Your task to perform on an android device: Open Google Image 0: 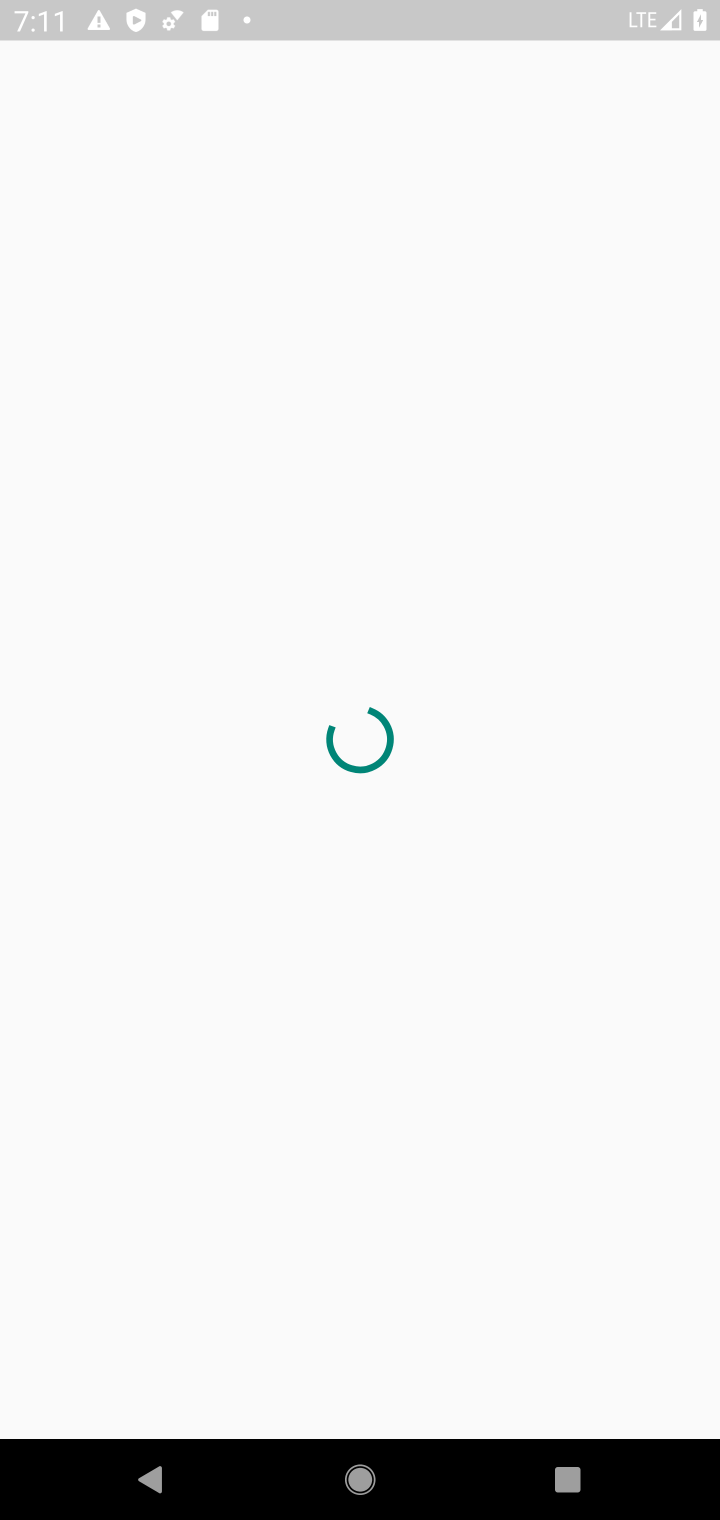
Step 0: press home button
Your task to perform on an android device: Open Google Image 1: 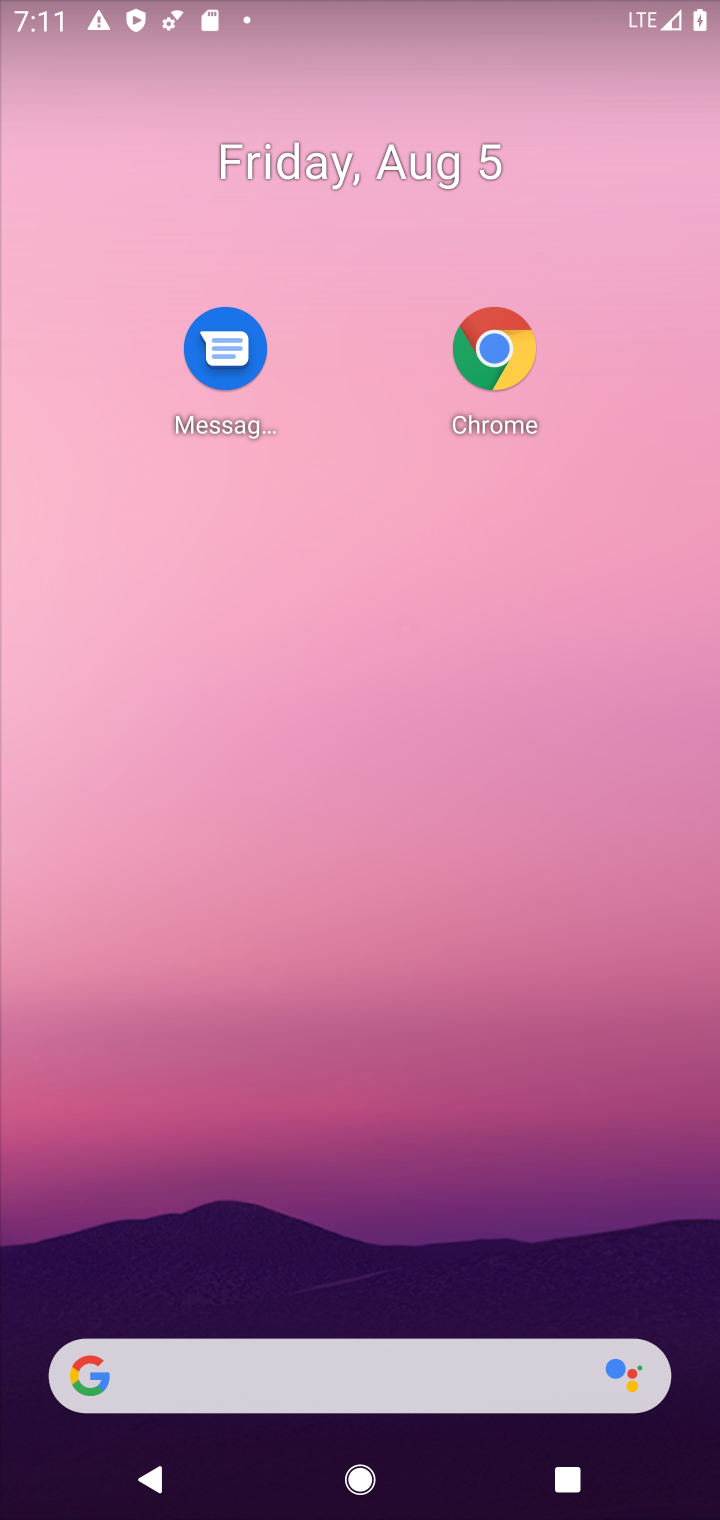
Step 1: drag from (483, 1406) to (360, 344)
Your task to perform on an android device: Open Google Image 2: 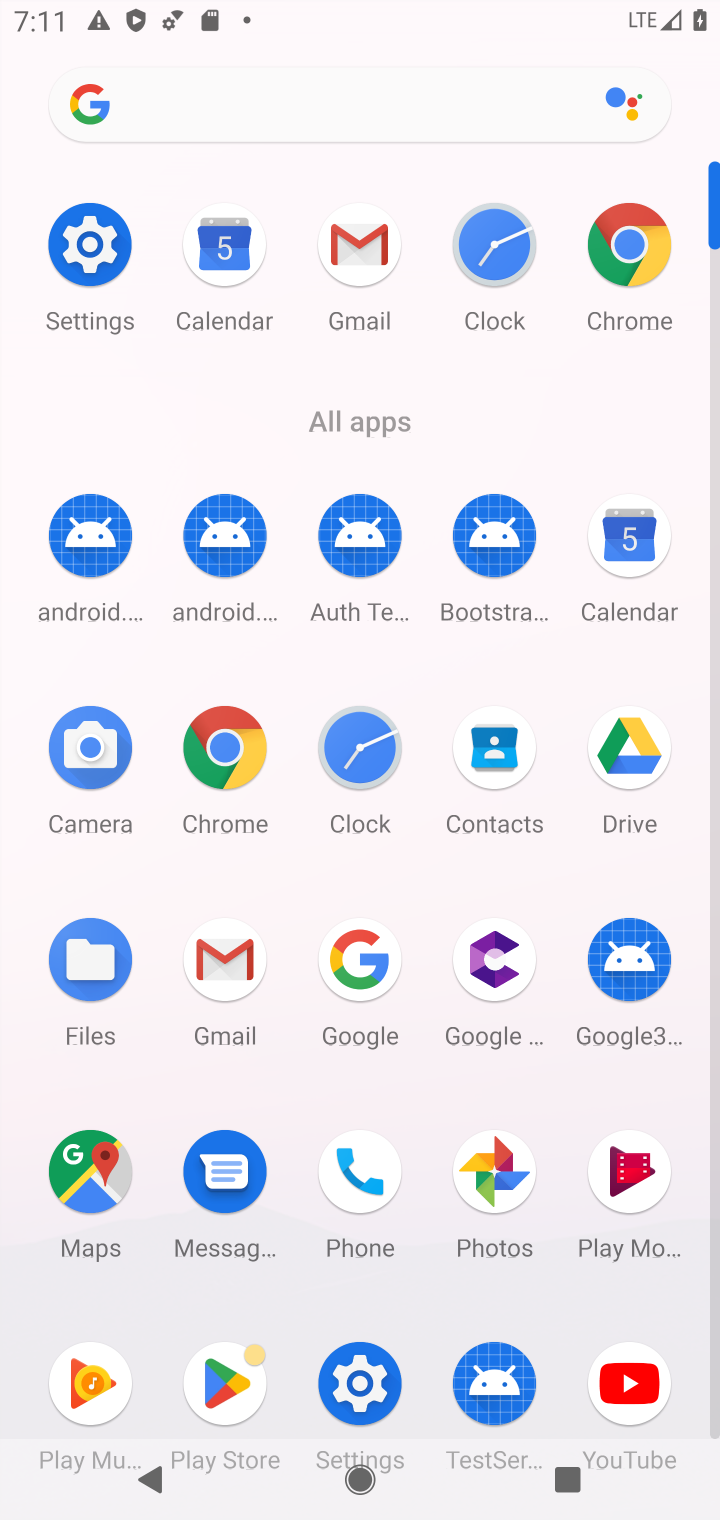
Step 2: click (629, 250)
Your task to perform on an android device: Open Google Image 3: 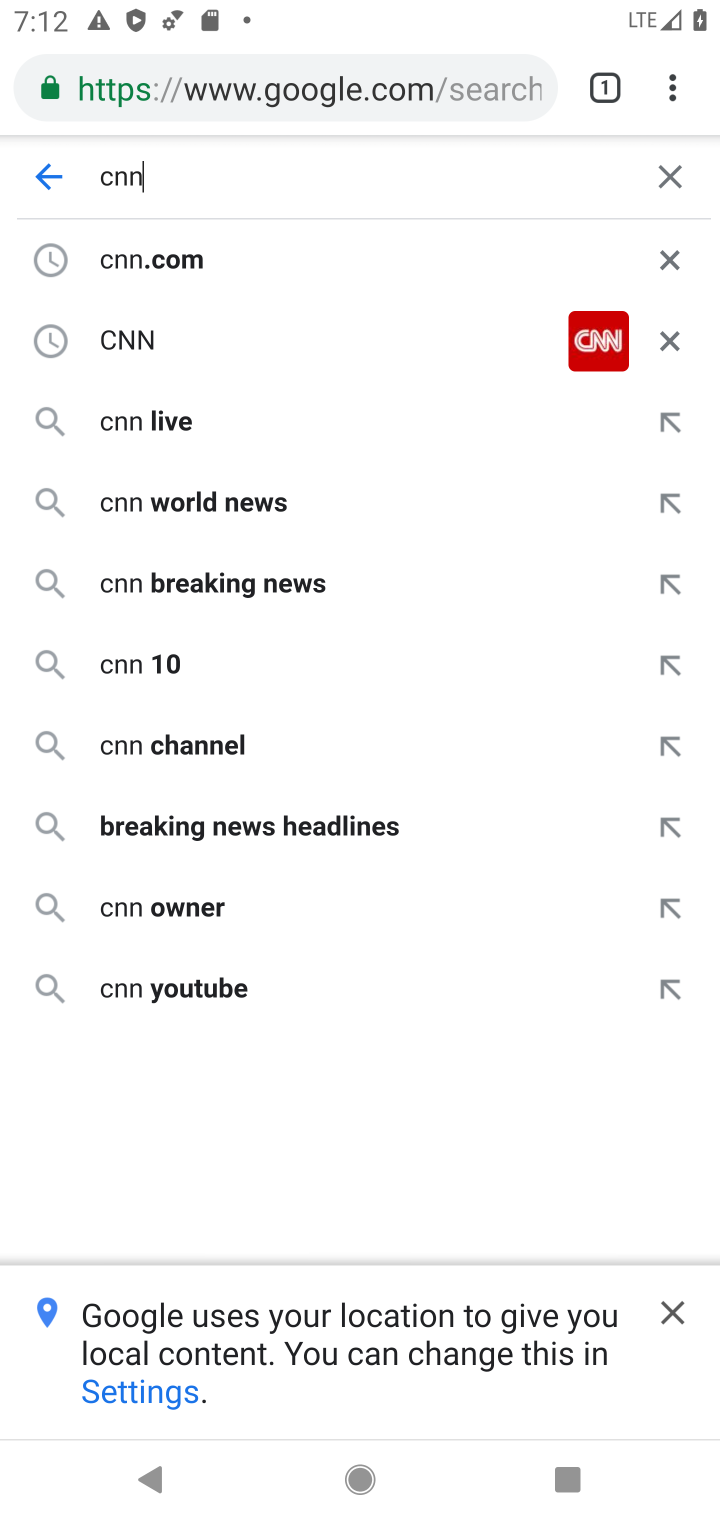
Step 3: click (667, 180)
Your task to perform on an android device: Open Google Image 4: 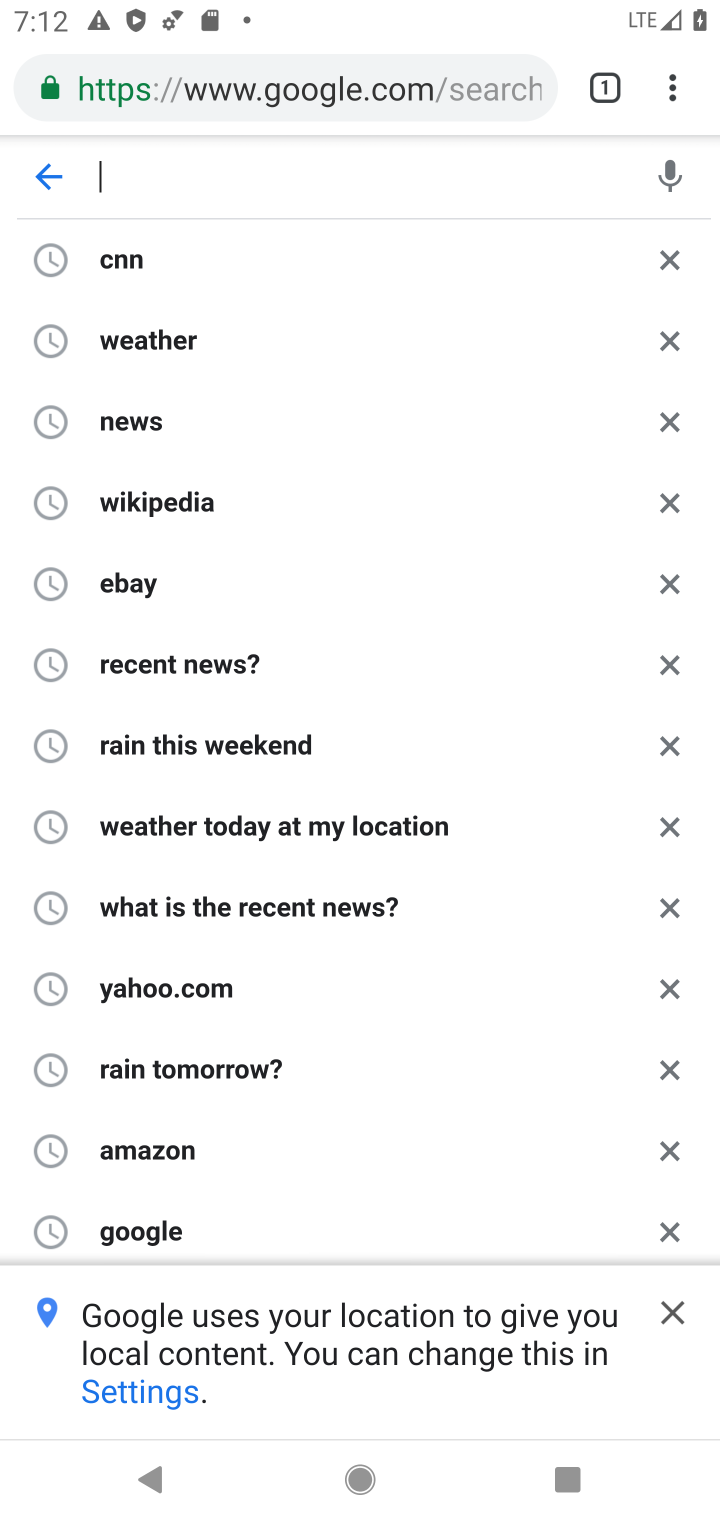
Step 4: click (587, 89)
Your task to perform on an android device: Open Google Image 5: 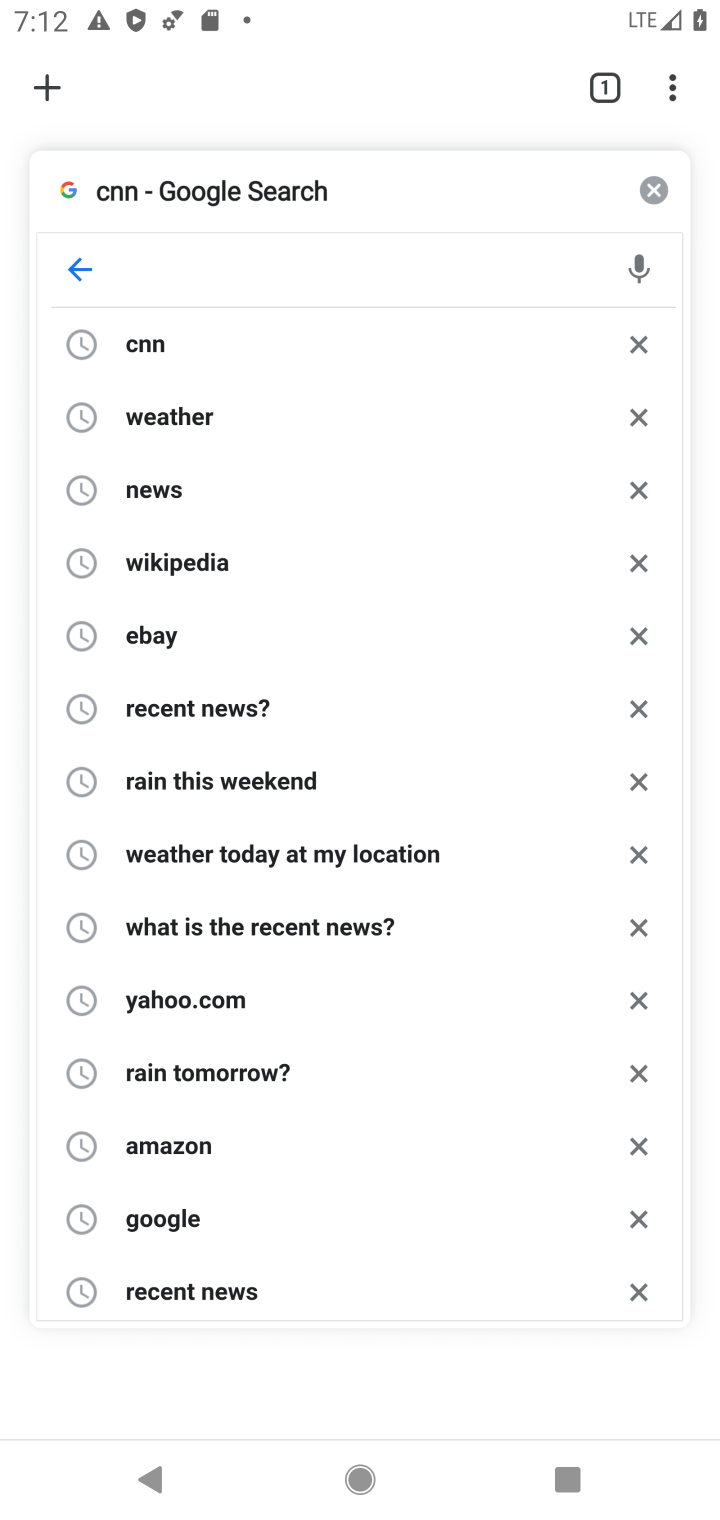
Step 5: click (168, 191)
Your task to perform on an android device: Open Google Image 6: 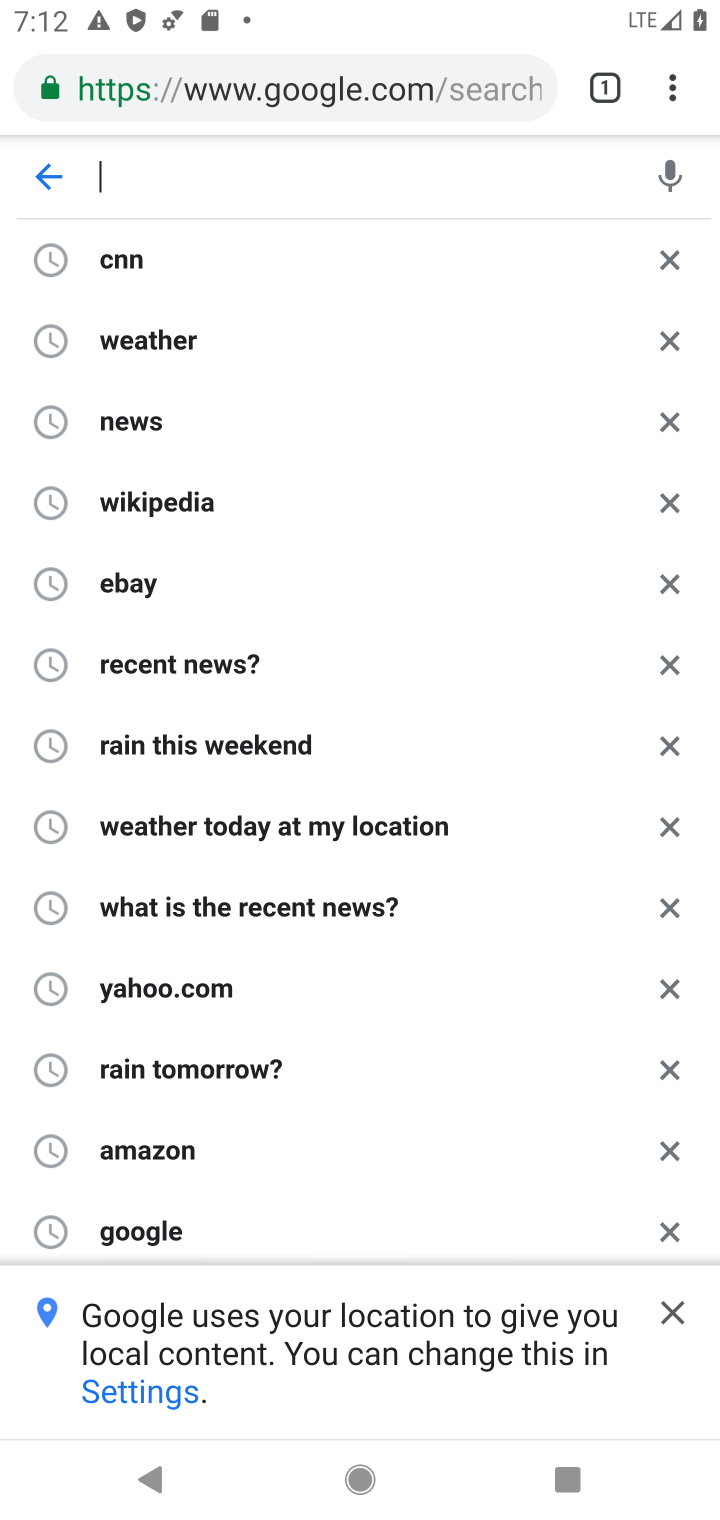
Step 6: click (583, 82)
Your task to perform on an android device: Open Google Image 7: 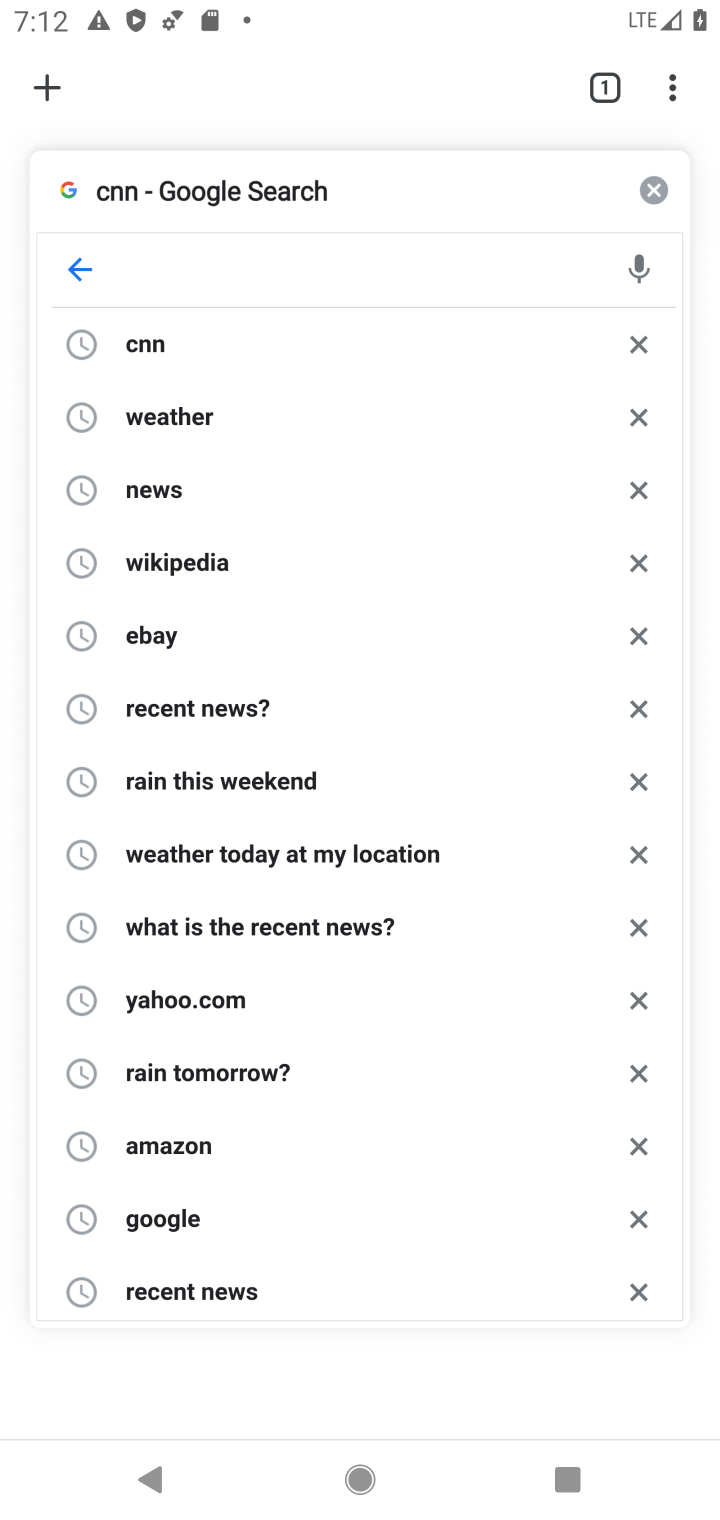
Step 7: click (50, 94)
Your task to perform on an android device: Open Google Image 8: 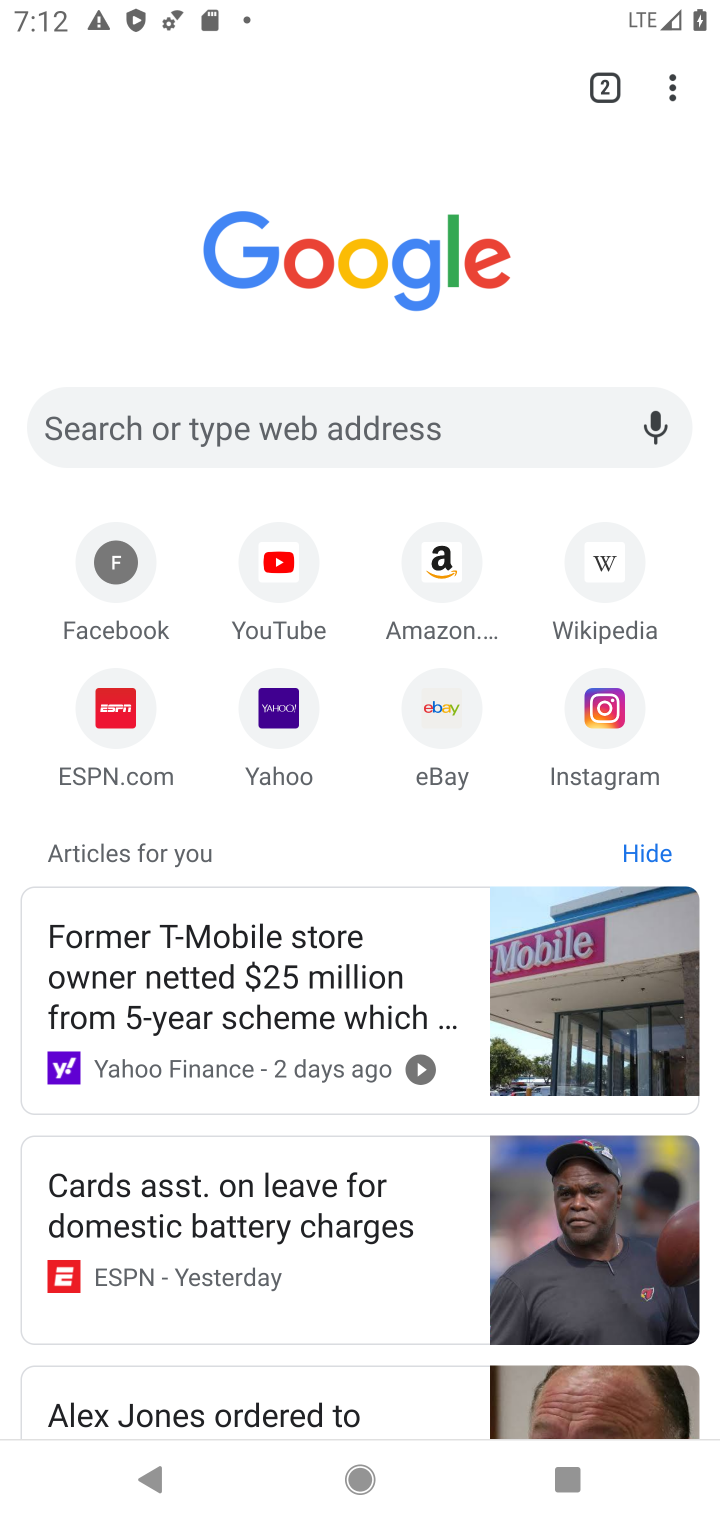
Step 8: task complete